Your task to perform on an android device: toggle priority inbox in the gmail app Image 0: 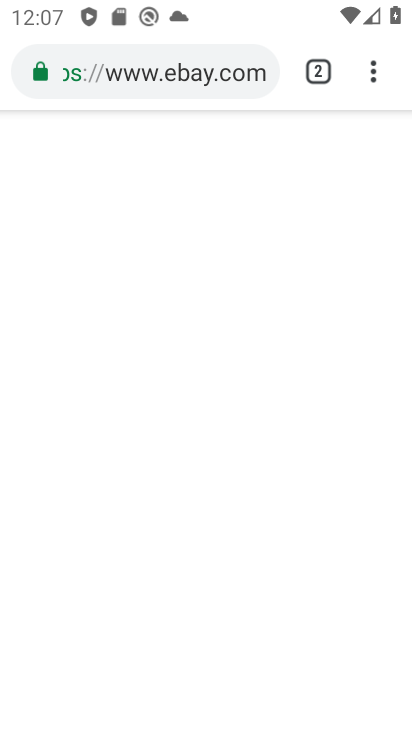
Step 0: press home button
Your task to perform on an android device: toggle priority inbox in the gmail app Image 1: 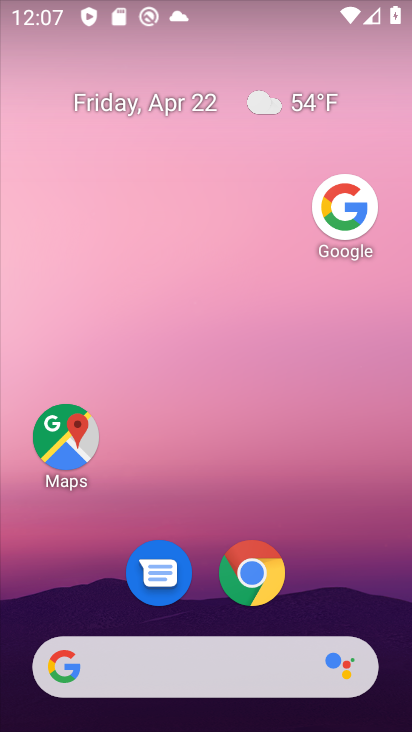
Step 1: drag from (184, 628) to (315, 166)
Your task to perform on an android device: toggle priority inbox in the gmail app Image 2: 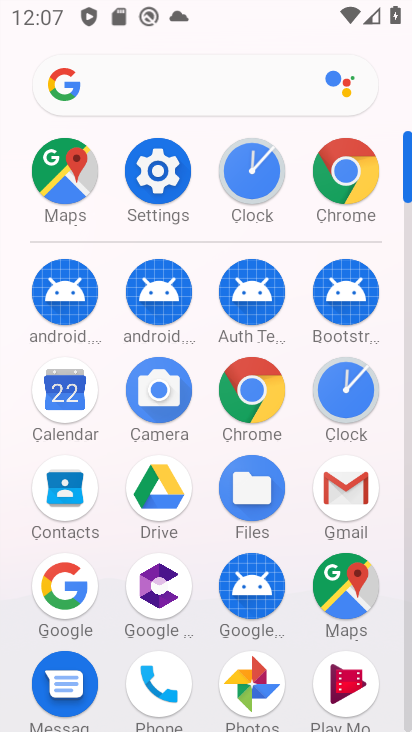
Step 2: click (352, 496)
Your task to perform on an android device: toggle priority inbox in the gmail app Image 3: 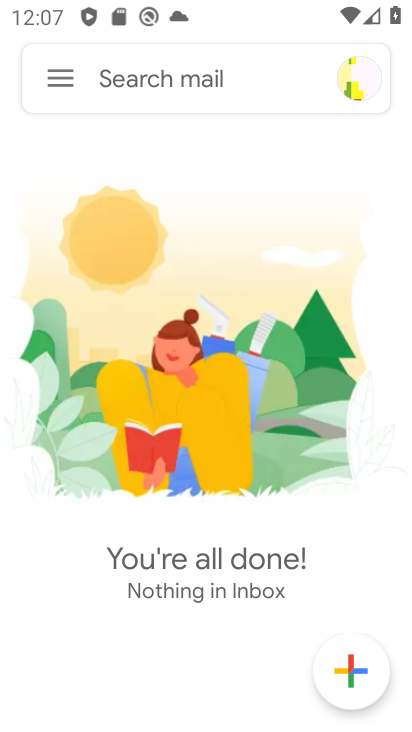
Step 3: click (55, 75)
Your task to perform on an android device: toggle priority inbox in the gmail app Image 4: 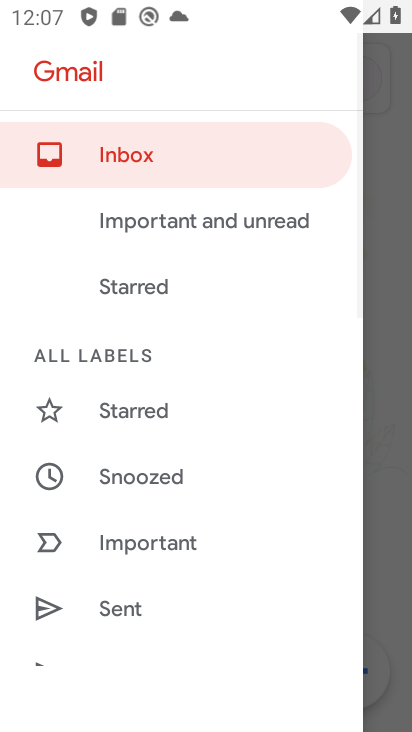
Step 4: drag from (143, 658) to (282, 156)
Your task to perform on an android device: toggle priority inbox in the gmail app Image 5: 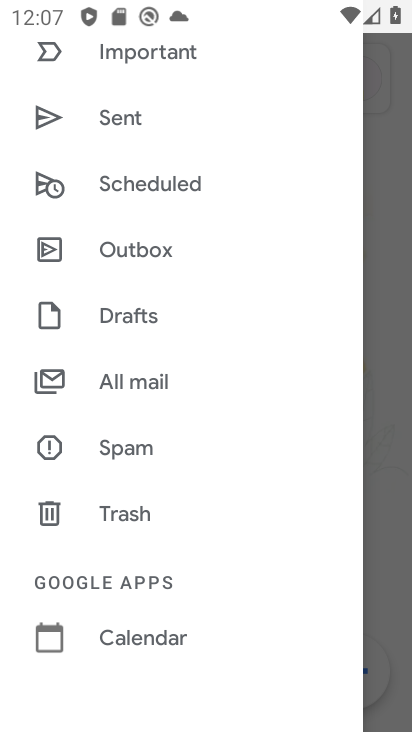
Step 5: drag from (152, 593) to (255, 61)
Your task to perform on an android device: toggle priority inbox in the gmail app Image 6: 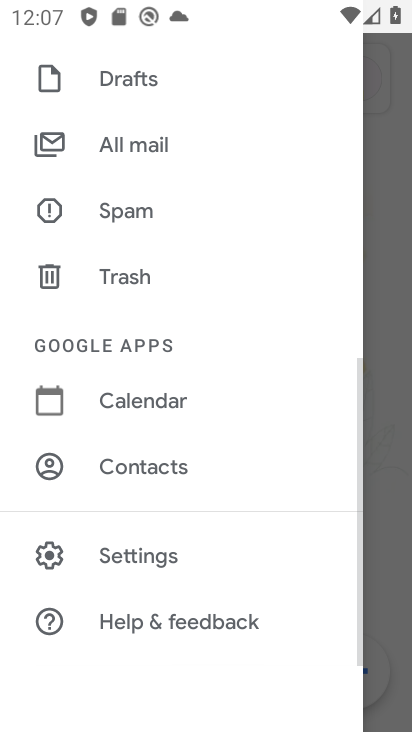
Step 6: click (146, 558)
Your task to perform on an android device: toggle priority inbox in the gmail app Image 7: 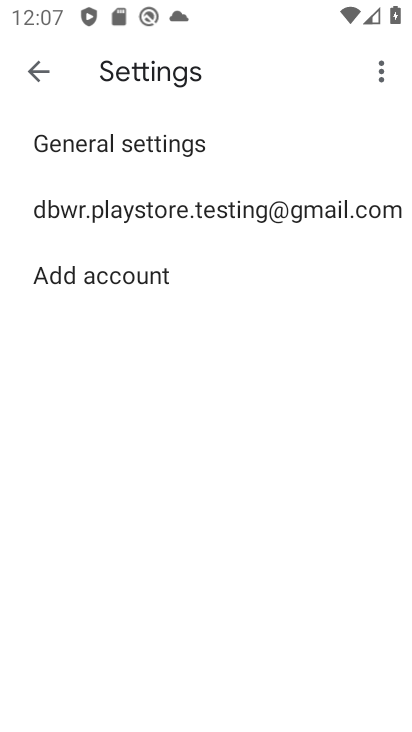
Step 7: click (214, 205)
Your task to perform on an android device: toggle priority inbox in the gmail app Image 8: 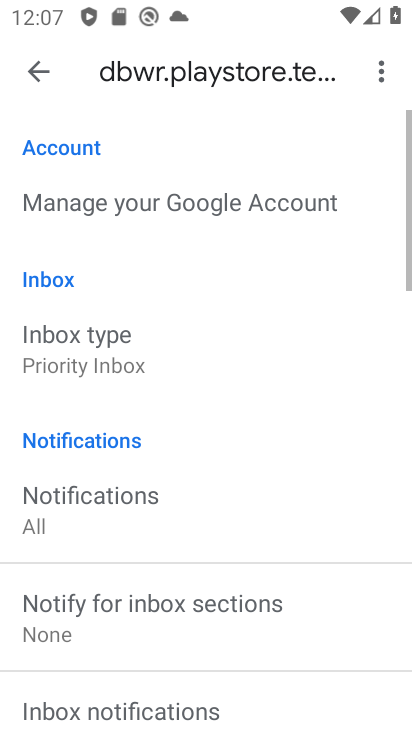
Step 8: click (126, 348)
Your task to perform on an android device: toggle priority inbox in the gmail app Image 9: 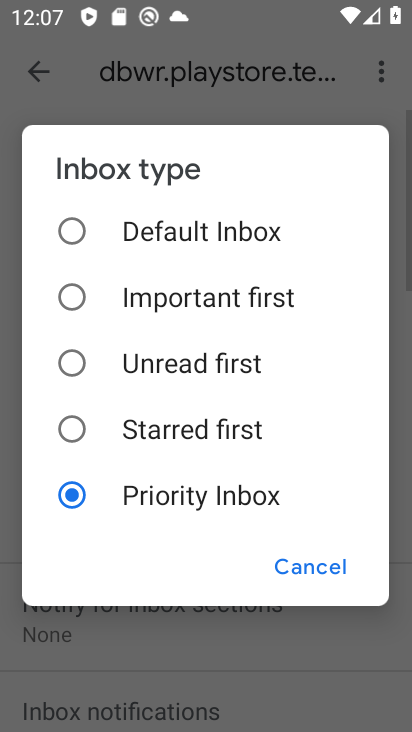
Step 9: click (70, 232)
Your task to perform on an android device: toggle priority inbox in the gmail app Image 10: 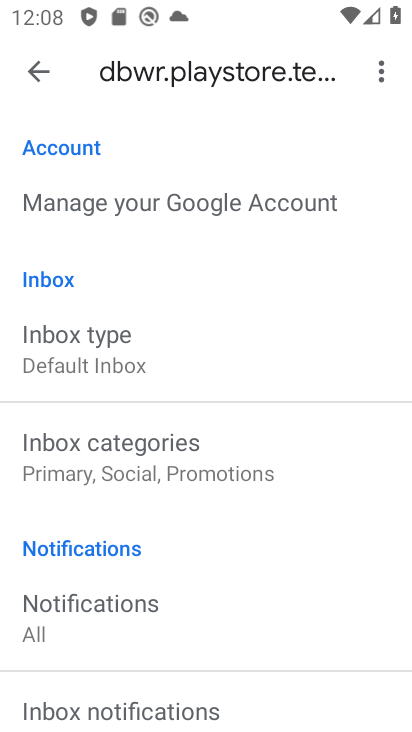
Step 10: task complete